Your task to perform on an android device: Open Google Chrome and click the shortcut for Amazon.com Image 0: 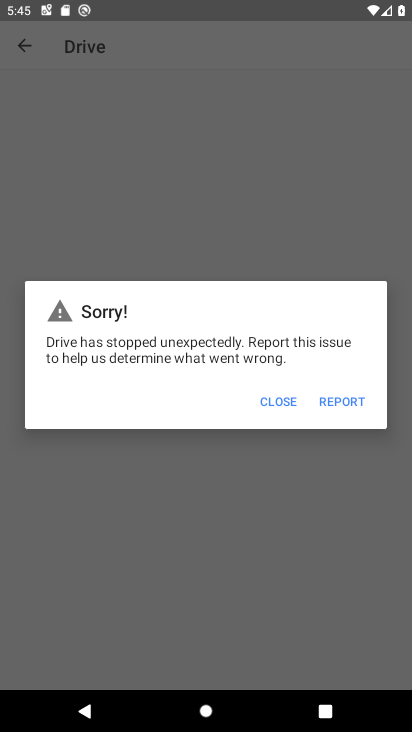
Step 0: press home button
Your task to perform on an android device: Open Google Chrome and click the shortcut for Amazon.com Image 1: 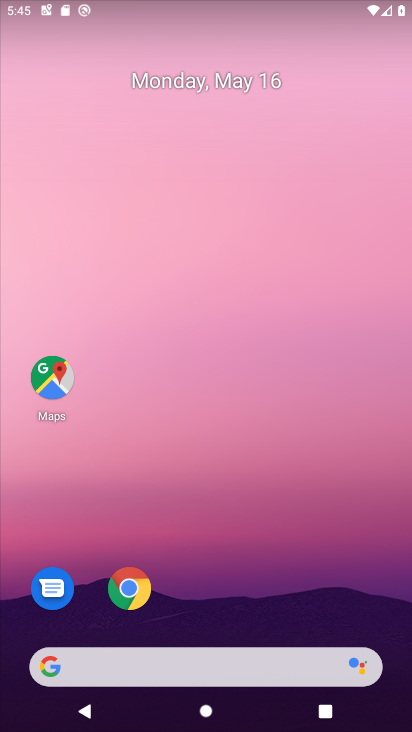
Step 1: click (143, 584)
Your task to perform on an android device: Open Google Chrome and click the shortcut for Amazon.com Image 2: 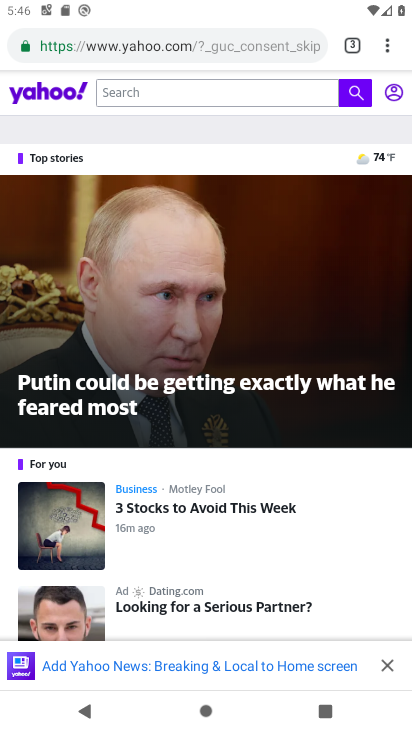
Step 2: click (353, 30)
Your task to perform on an android device: Open Google Chrome and click the shortcut for Amazon.com Image 3: 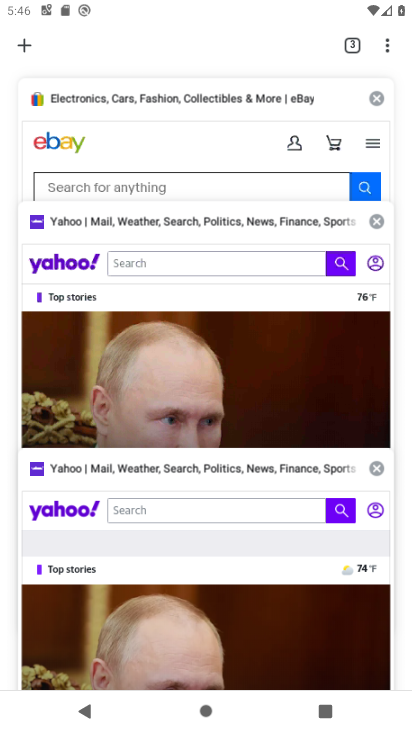
Step 3: click (23, 41)
Your task to perform on an android device: Open Google Chrome and click the shortcut for Amazon.com Image 4: 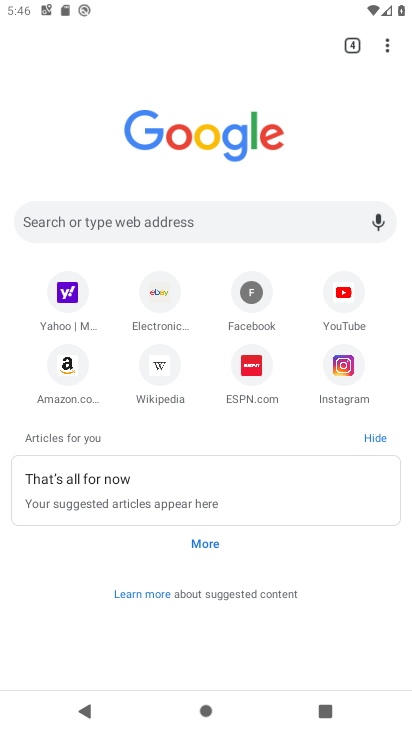
Step 4: click (64, 354)
Your task to perform on an android device: Open Google Chrome and click the shortcut for Amazon.com Image 5: 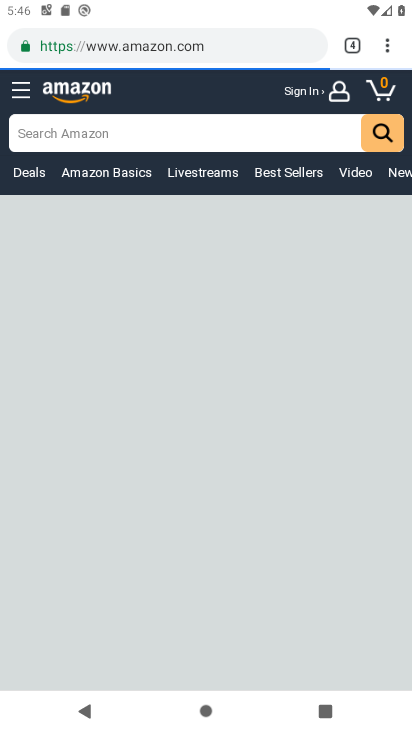
Step 5: task complete